Your task to perform on an android device: Go to wifi settings Image 0: 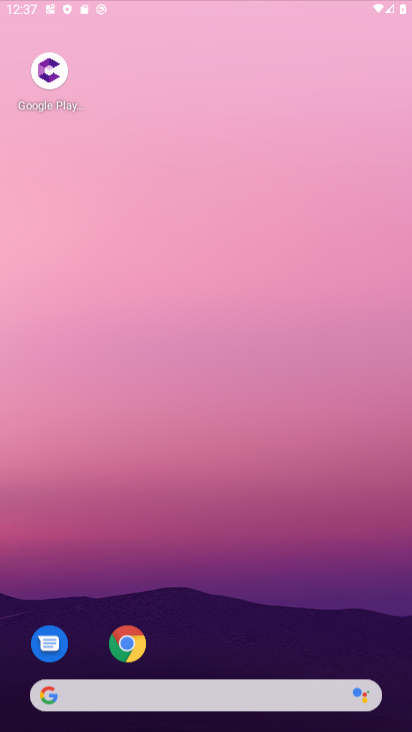
Step 0: drag from (214, 655) to (189, 234)
Your task to perform on an android device: Go to wifi settings Image 1: 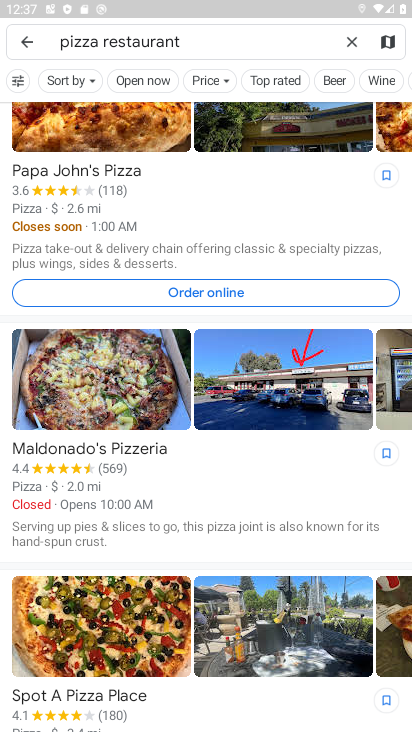
Step 1: press home button
Your task to perform on an android device: Go to wifi settings Image 2: 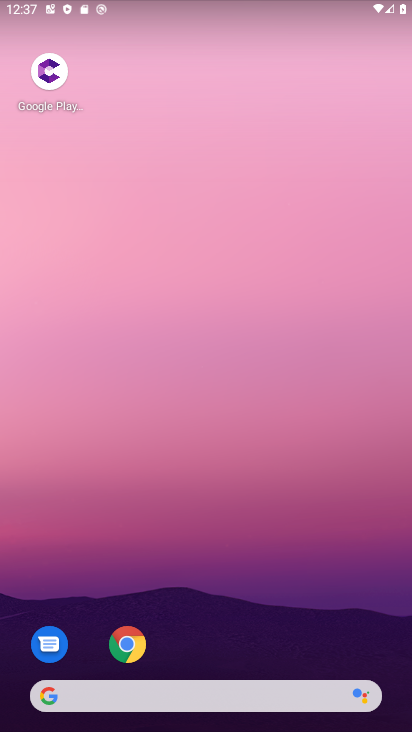
Step 2: drag from (234, 728) to (208, 156)
Your task to perform on an android device: Go to wifi settings Image 3: 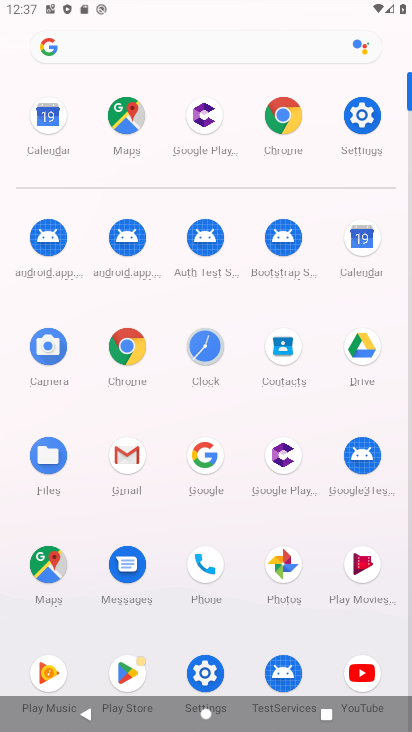
Step 3: click (360, 122)
Your task to perform on an android device: Go to wifi settings Image 4: 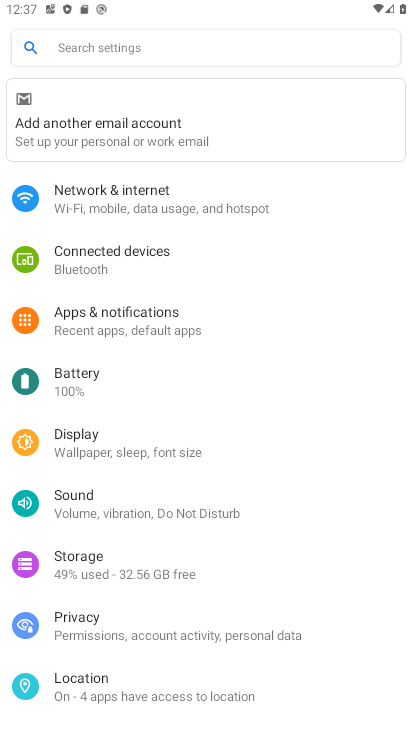
Step 4: click (88, 201)
Your task to perform on an android device: Go to wifi settings Image 5: 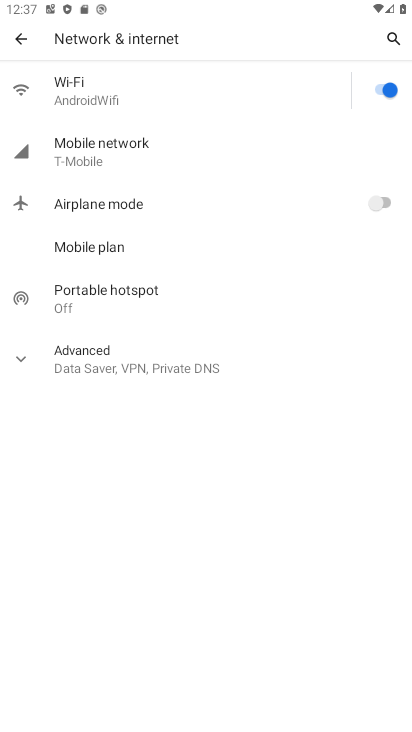
Step 5: click (76, 90)
Your task to perform on an android device: Go to wifi settings Image 6: 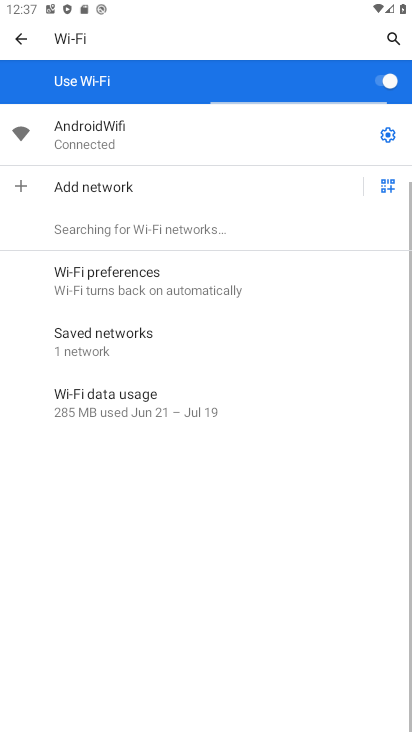
Step 6: task complete